Your task to perform on an android device: open app "Lyft - Rideshare, Bikes, Scooters & Transit" Image 0: 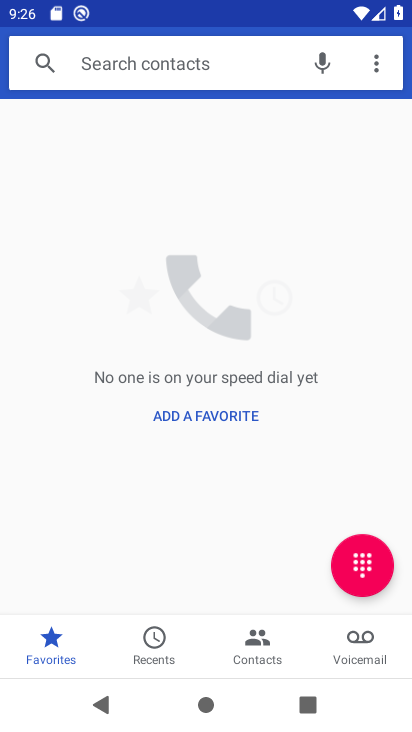
Step 0: press home button
Your task to perform on an android device: open app "Lyft - Rideshare, Bikes, Scooters & Transit" Image 1: 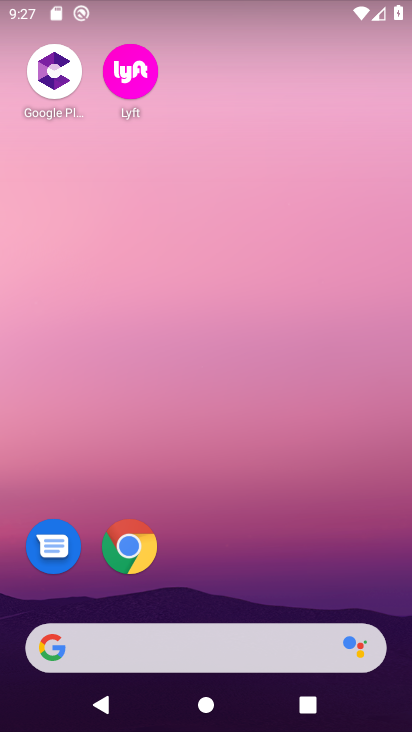
Step 1: task complete